Your task to perform on an android device: Open the web browser Image 0: 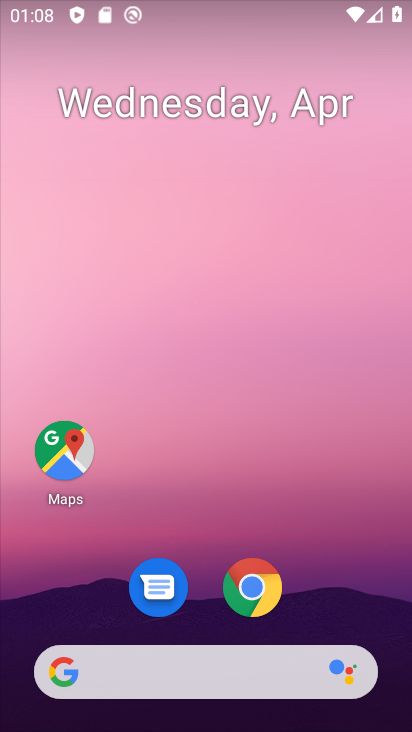
Step 0: click (258, 586)
Your task to perform on an android device: Open the web browser Image 1: 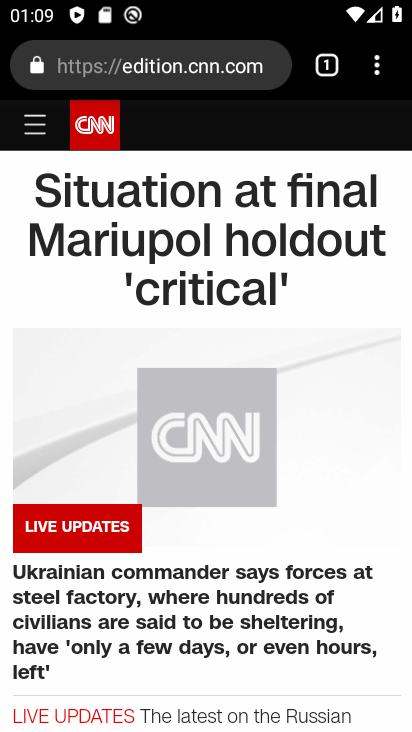
Step 1: task complete